Your task to perform on an android device: toggle airplane mode Image 0: 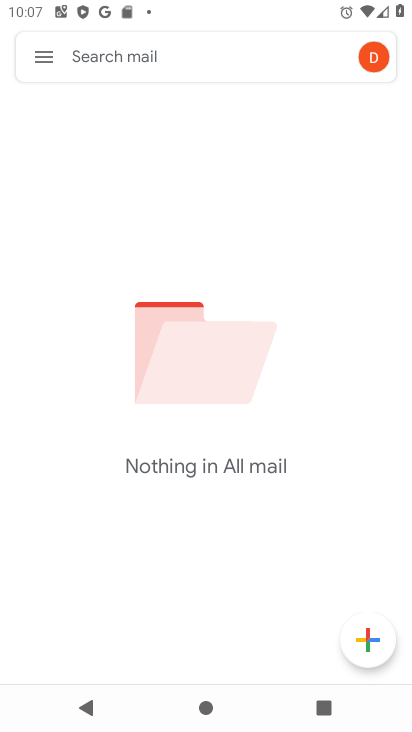
Step 0: press home button
Your task to perform on an android device: toggle airplane mode Image 1: 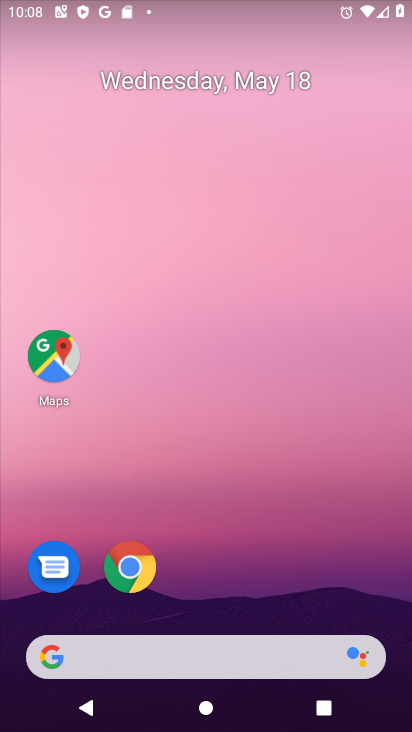
Step 1: drag from (221, 645) to (200, 225)
Your task to perform on an android device: toggle airplane mode Image 2: 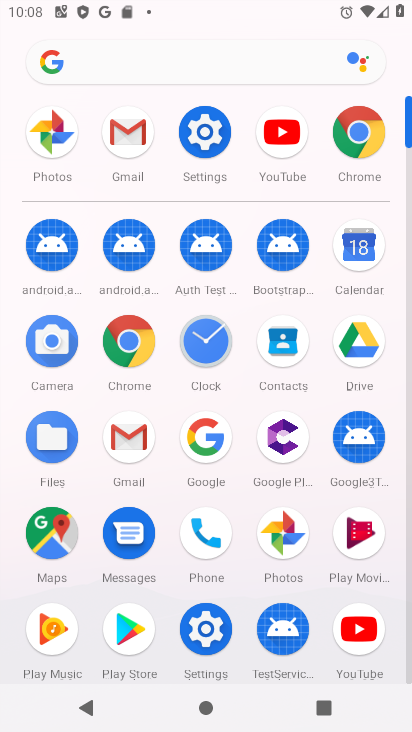
Step 2: click (205, 155)
Your task to perform on an android device: toggle airplane mode Image 3: 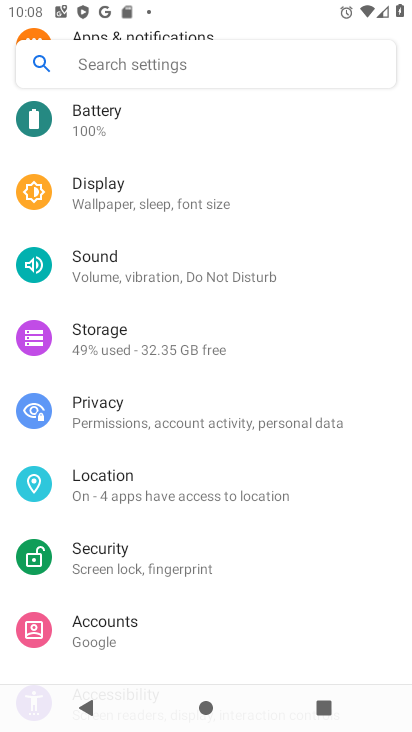
Step 3: drag from (178, 87) to (189, 447)
Your task to perform on an android device: toggle airplane mode Image 4: 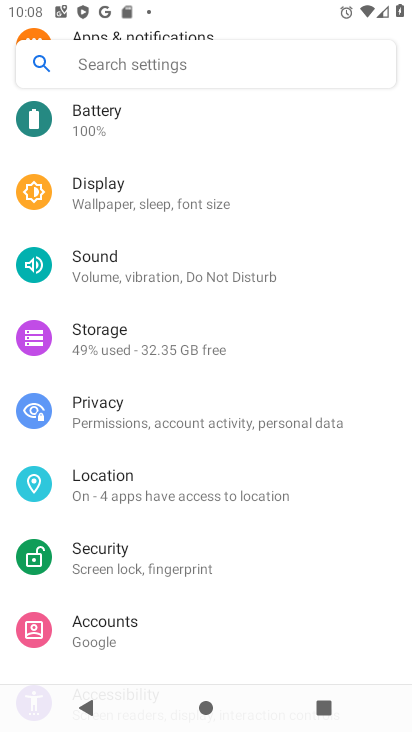
Step 4: drag from (178, 178) to (158, 594)
Your task to perform on an android device: toggle airplane mode Image 5: 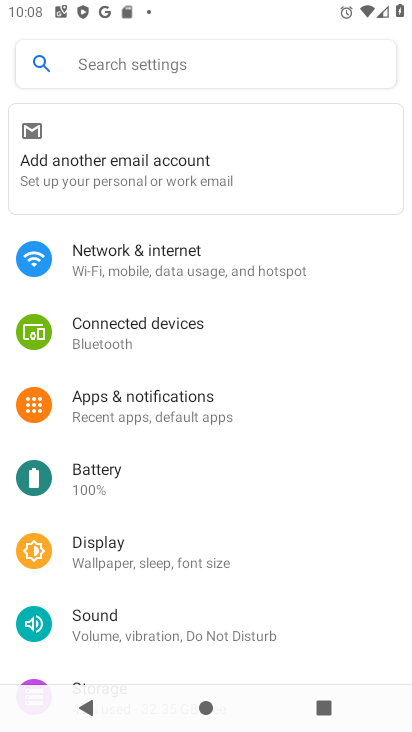
Step 5: click (136, 256)
Your task to perform on an android device: toggle airplane mode Image 6: 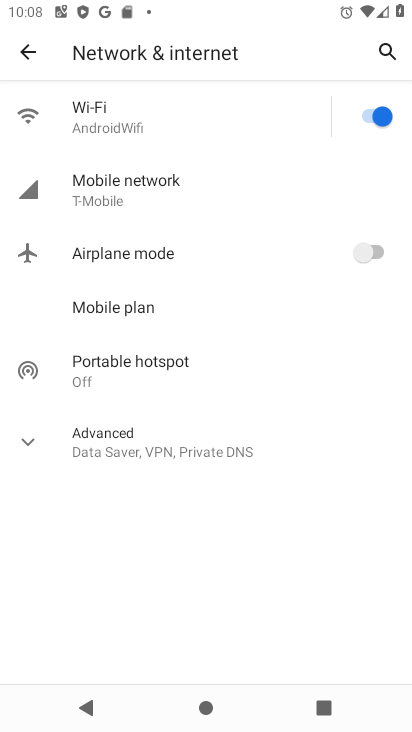
Step 6: click (363, 247)
Your task to perform on an android device: toggle airplane mode Image 7: 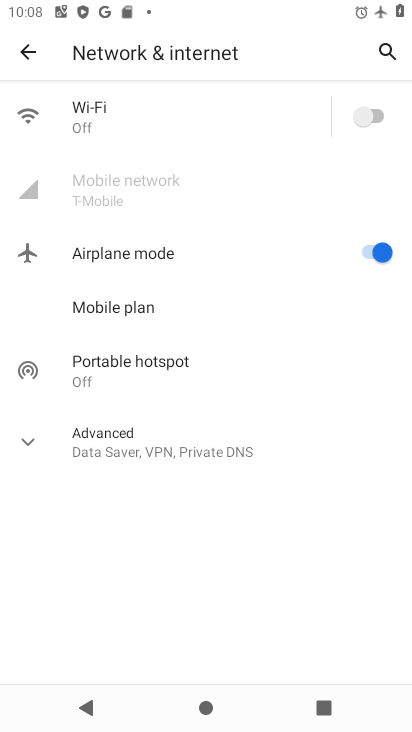
Step 7: task complete